Your task to perform on an android device: Open Amazon Image 0: 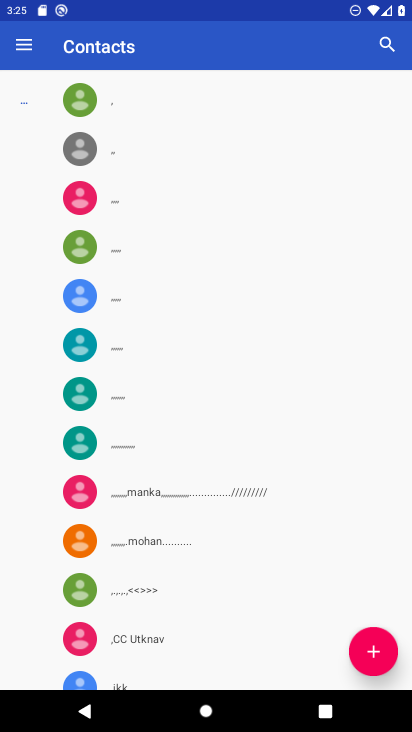
Step 0: press home button
Your task to perform on an android device: Open Amazon Image 1: 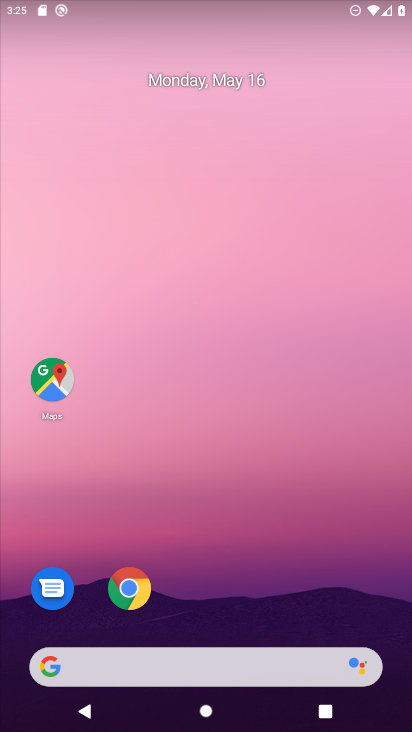
Step 1: click (131, 582)
Your task to perform on an android device: Open Amazon Image 2: 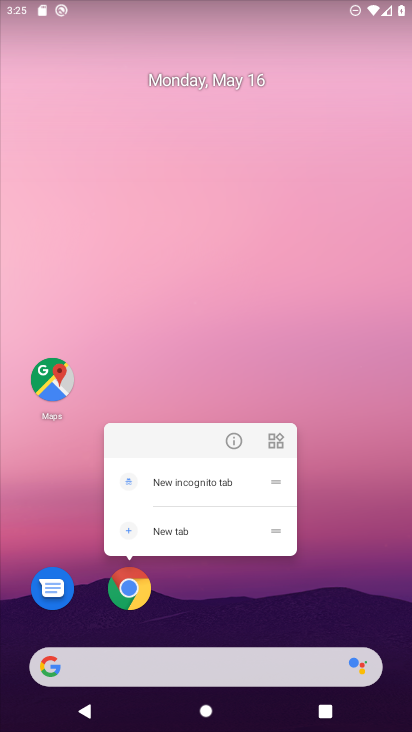
Step 2: click (125, 595)
Your task to perform on an android device: Open Amazon Image 3: 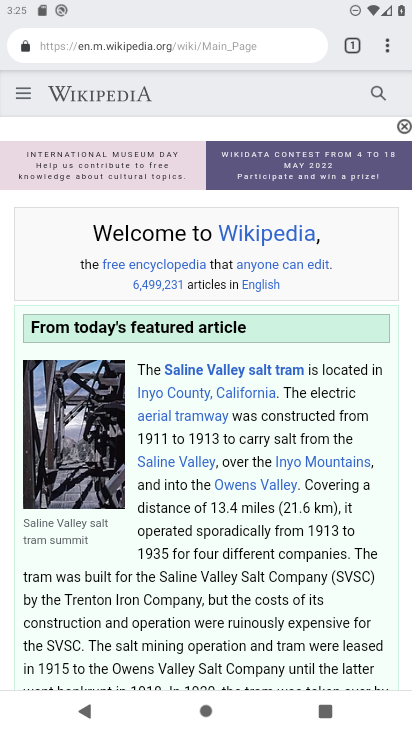
Step 3: click (112, 39)
Your task to perform on an android device: Open Amazon Image 4: 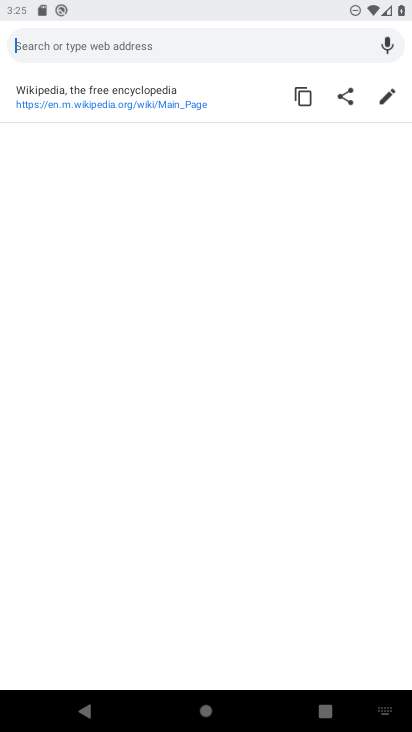
Step 4: type "amazon"
Your task to perform on an android device: Open Amazon Image 5: 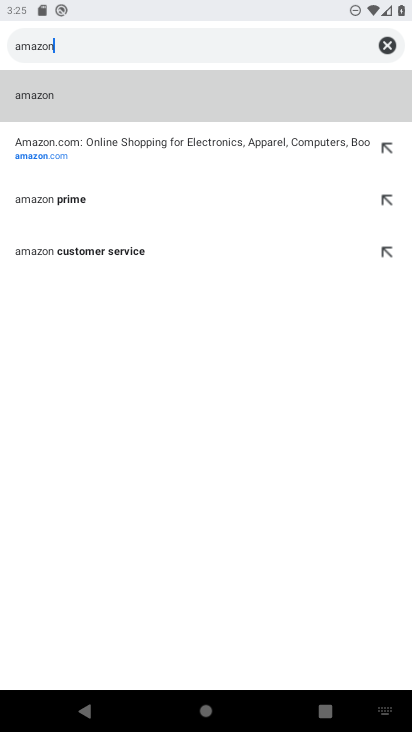
Step 5: click (37, 100)
Your task to perform on an android device: Open Amazon Image 6: 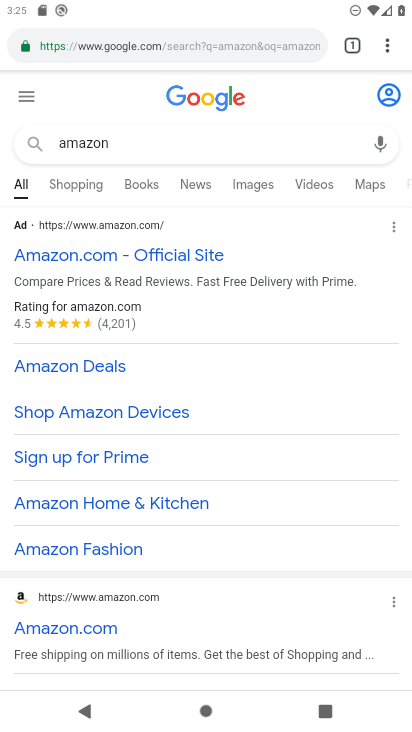
Step 6: click (53, 256)
Your task to perform on an android device: Open Amazon Image 7: 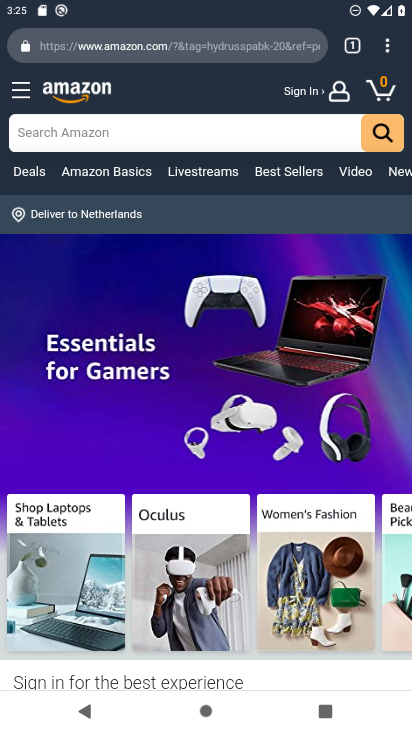
Step 7: task complete